Your task to perform on an android device: turn on the 12-hour format for clock Image 0: 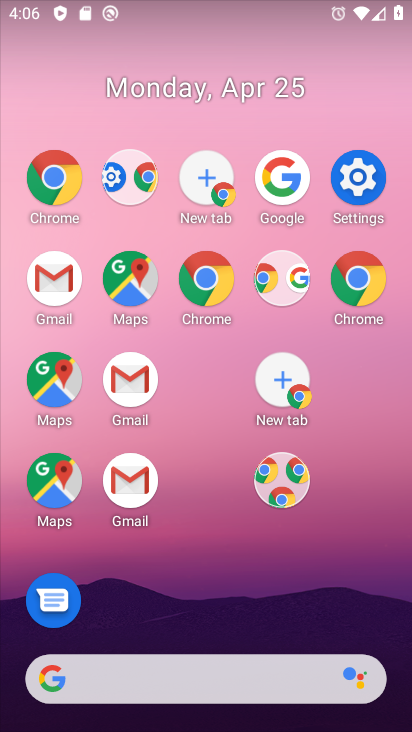
Step 0: drag from (319, 599) to (153, 62)
Your task to perform on an android device: turn on the 12-hour format for clock Image 1: 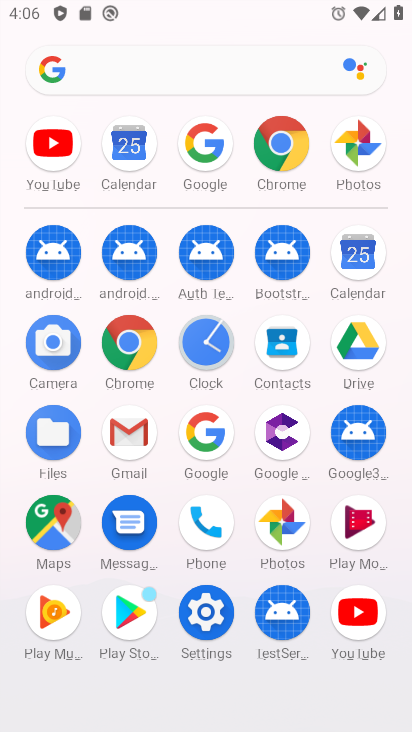
Step 1: click (215, 334)
Your task to perform on an android device: turn on the 12-hour format for clock Image 2: 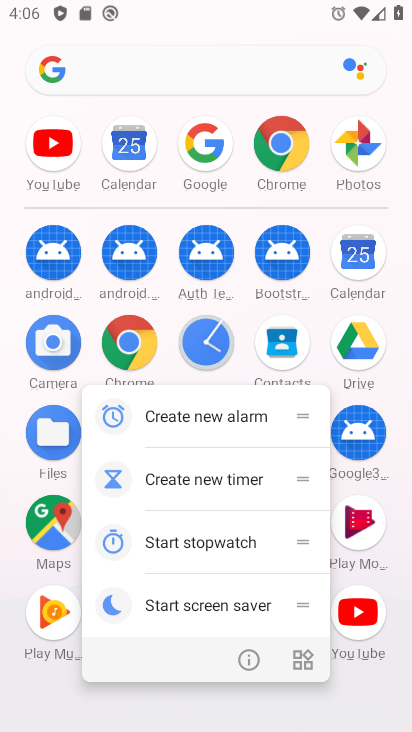
Step 2: click (207, 338)
Your task to perform on an android device: turn on the 12-hour format for clock Image 3: 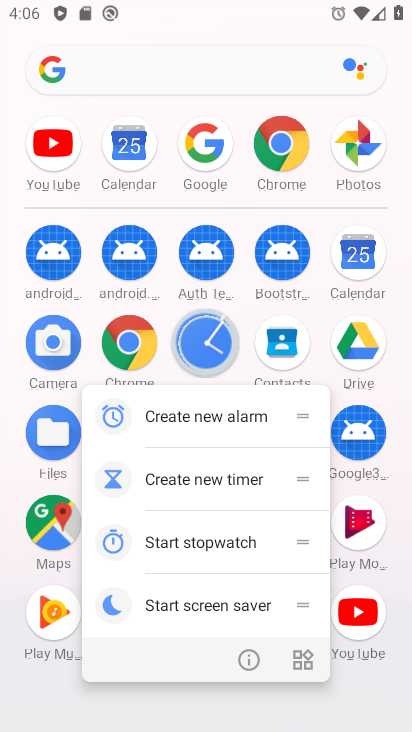
Step 3: click (206, 338)
Your task to perform on an android device: turn on the 12-hour format for clock Image 4: 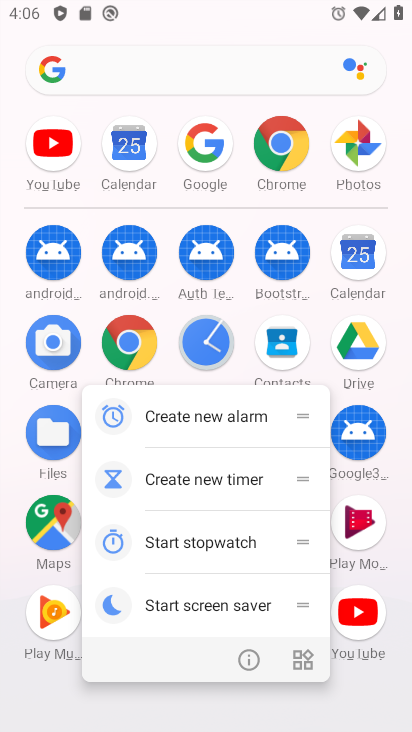
Step 4: click (206, 338)
Your task to perform on an android device: turn on the 12-hour format for clock Image 5: 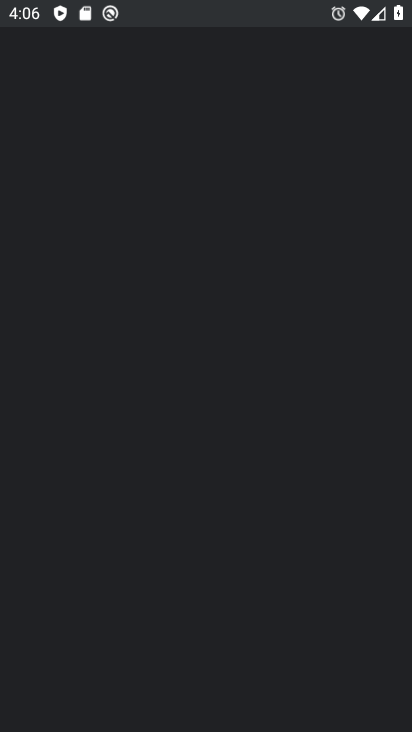
Step 5: click (204, 337)
Your task to perform on an android device: turn on the 12-hour format for clock Image 6: 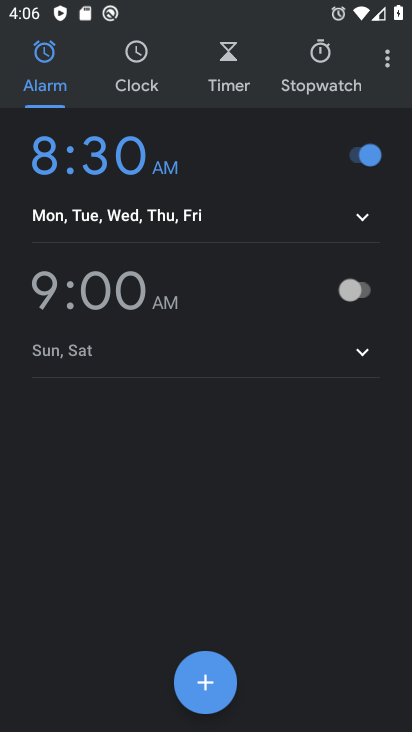
Step 6: click (387, 45)
Your task to perform on an android device: turn on the 12-hour format for clock Image 7: 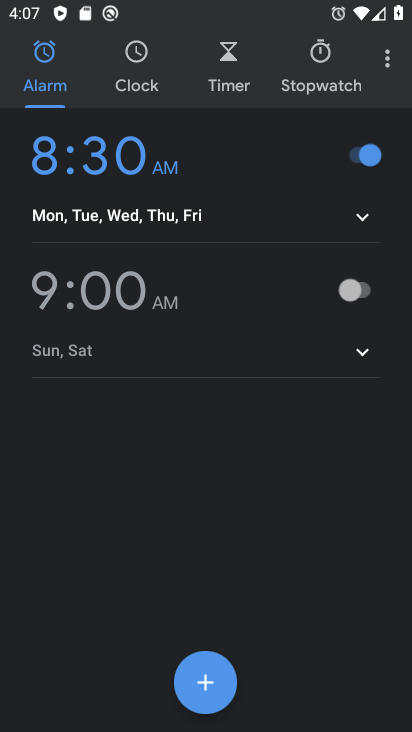
Step 7: click (381, 56)
Your task to perform on an android device: turn on the 12-hour format for clock Image 8: 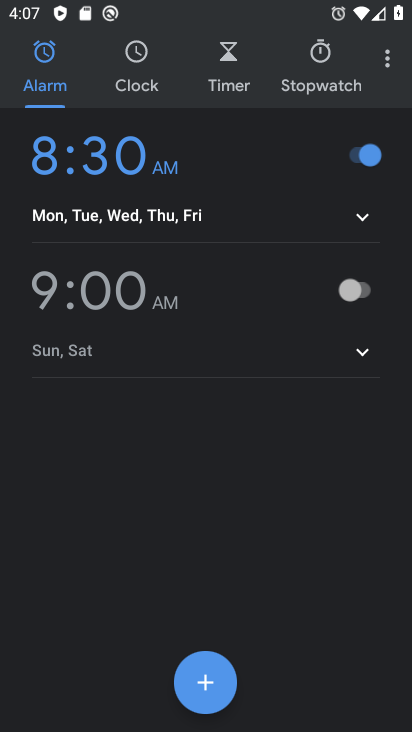
Step 8: click (380, 64)
Your task to perform on an android device: turn on the 12-hour format for clock Image 9: 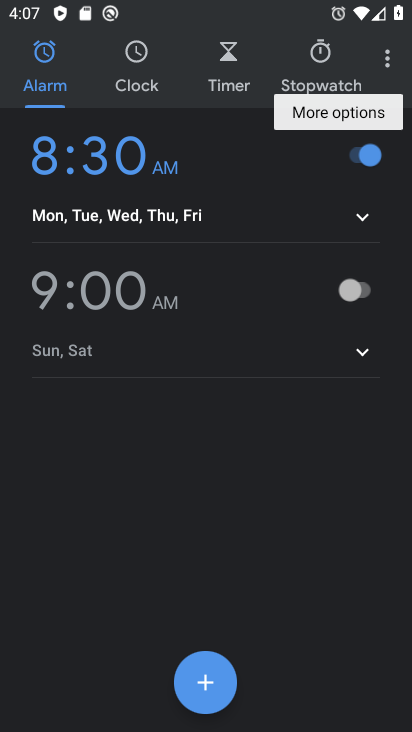
Step 9: click (385, 63)
Your task to perform on an android device: turn on the 12-hour format for clock Image 10: 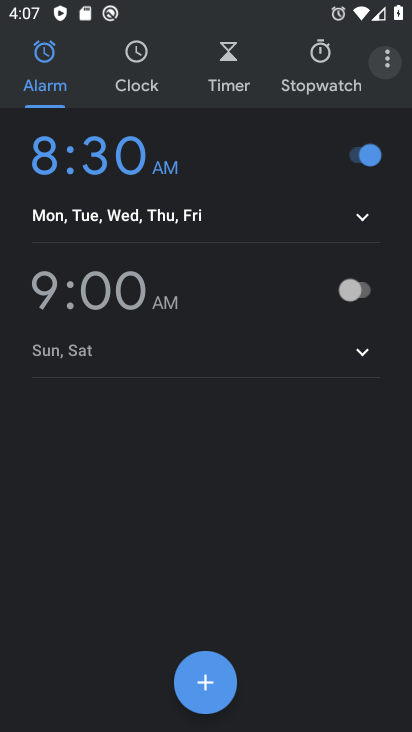
Step 10: click (386, 62)
Your task to perform on an android device: turn on the 12-hour format for clock Image 11: 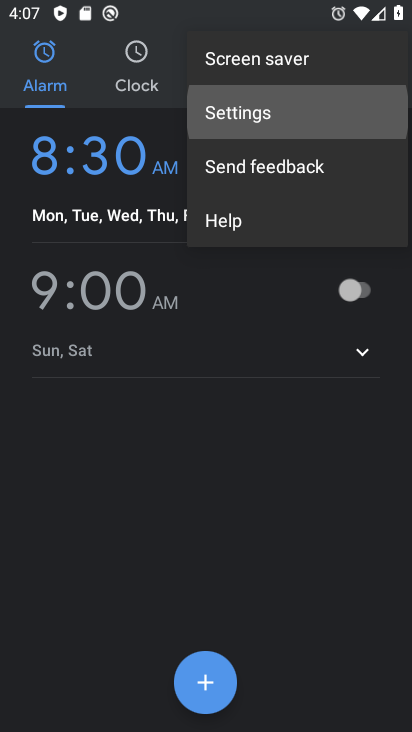
Step 11: click (386, 62)
Your task to perform on an android device: turn on the 12-hour format for clock Image 12: 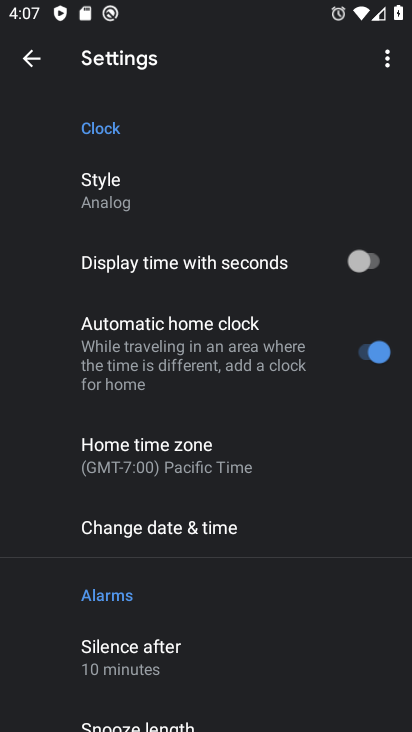
Step 12: click (147, 514)
Your task to perform on an android device: turn on the 12-hour format for clock Image 13: 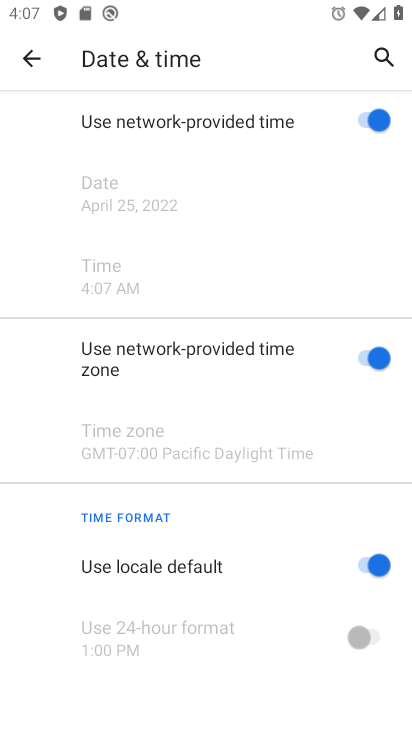
Step 13: click (370, 557)
Your task to perform on an android device: turn on the 12-hour format for clock Image 14: 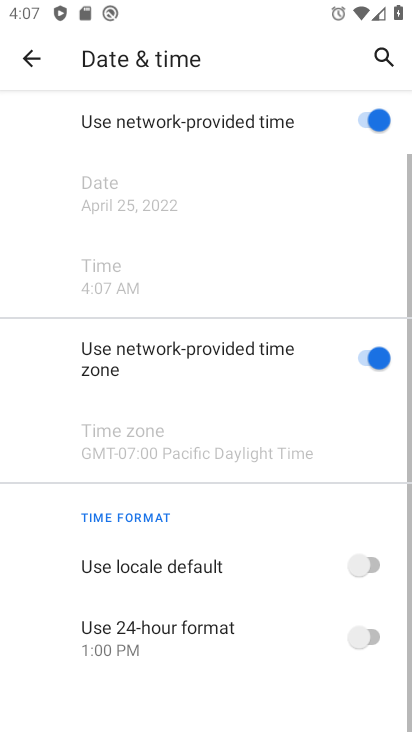
Step 14: click (354, 634)
Your task to perform on an android device: turn on the 12-hour format for clock Image 15: 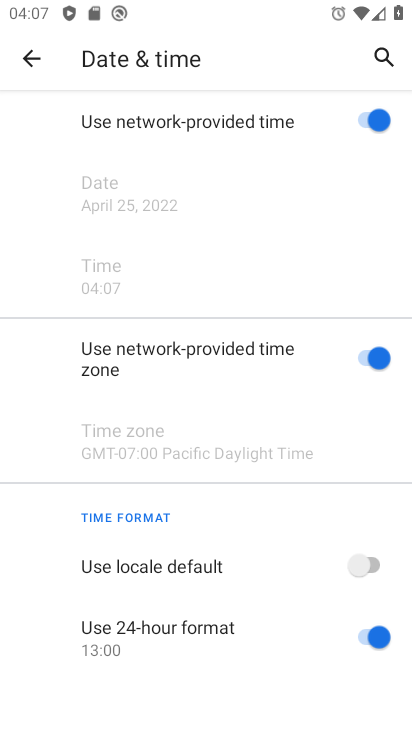
Step 15: press home button
Your task to perform on an android device: turn on the 12-hour format for clock Image 16: 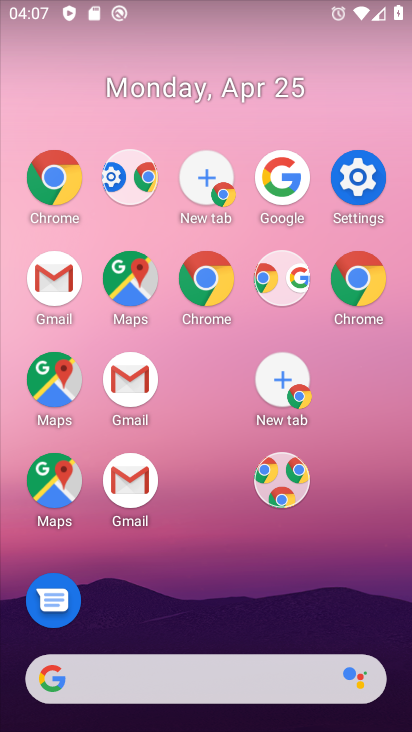
Step 16: drag from (270, 669) to (217, 192)
Your task to perform on an android device: turn on the 12-hour format for clock Image 17: 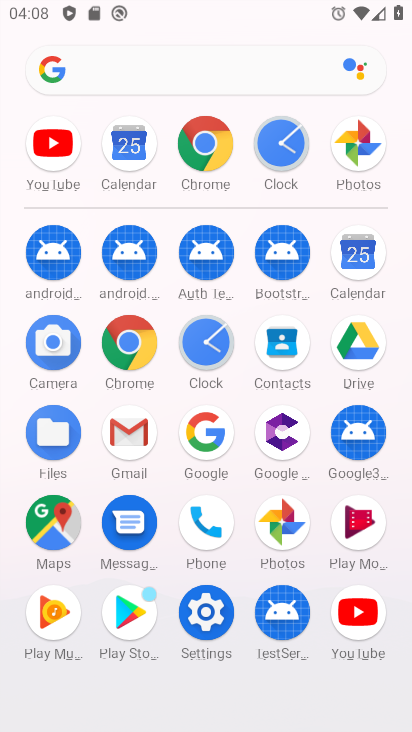
Step 17: click (219, 354)
Your task to perform on an android device: turn on the 12-hour format for clock Image 18: 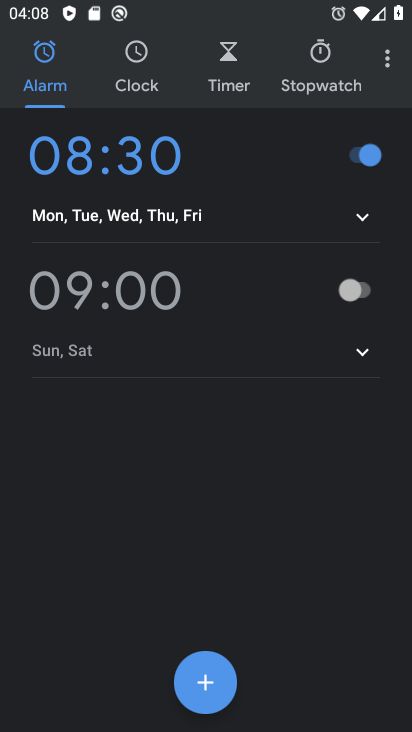
Step 18: click (392, 66)
Your task to perform on an android device: turn on the 12-hour format for clock Image 19: 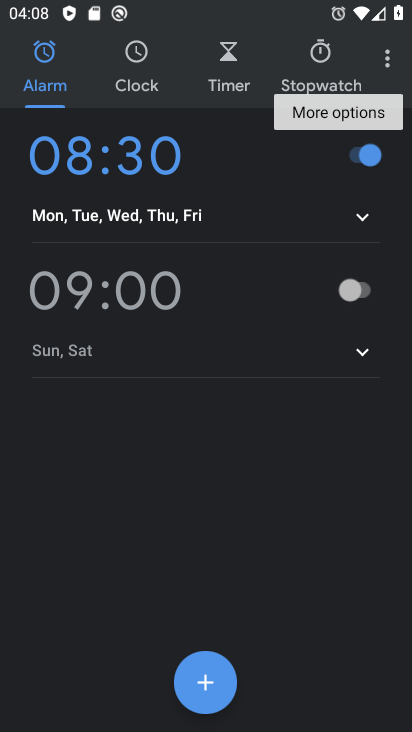
Step 19: click (386, 66)
Your task to perform on an android device: turn on the 12-hour format for clock Image 20: 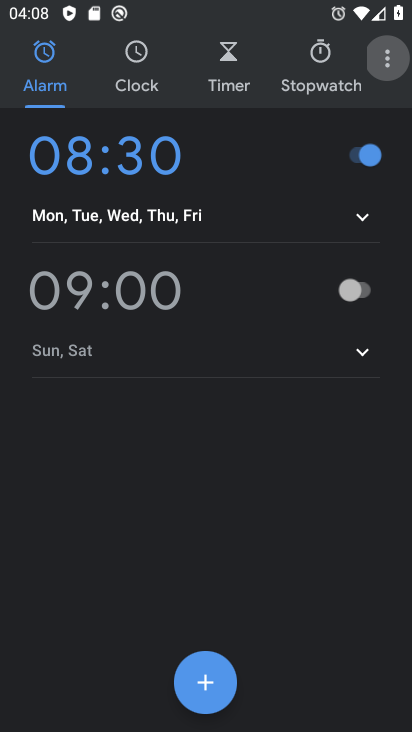
Step 20: click (386, 66)
Your task to perform on an android device: turn on the 12-hour format for clock Image 21: 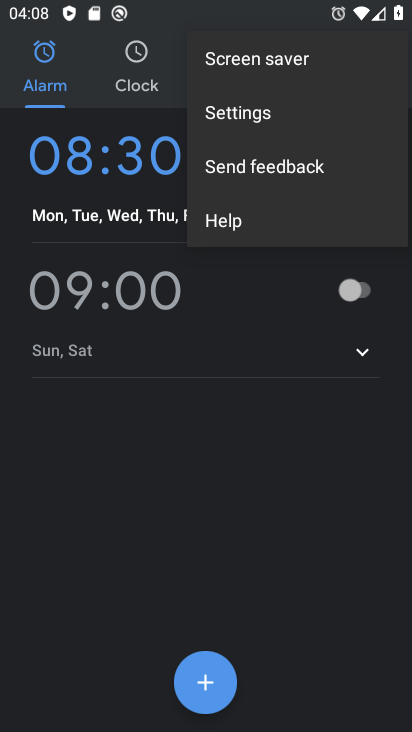
Step 21: click (386, 66)
Your task to perform on an android device: turn on the 12-hour format for clock Image 22: 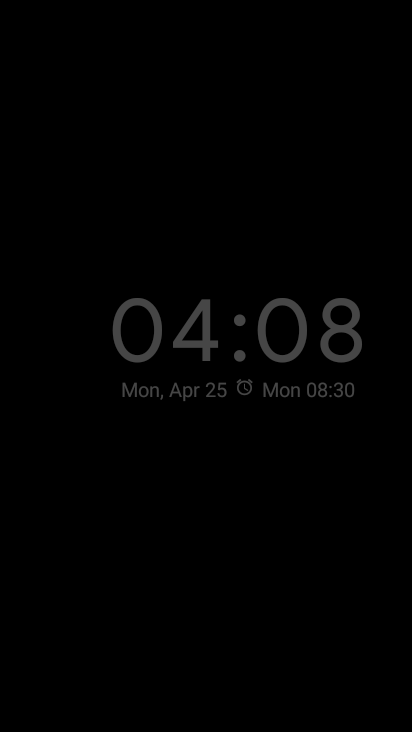
Step 22: click (266, 114)
Your task to perform on an android device: turn on the 12-hour format for clock Image 23: 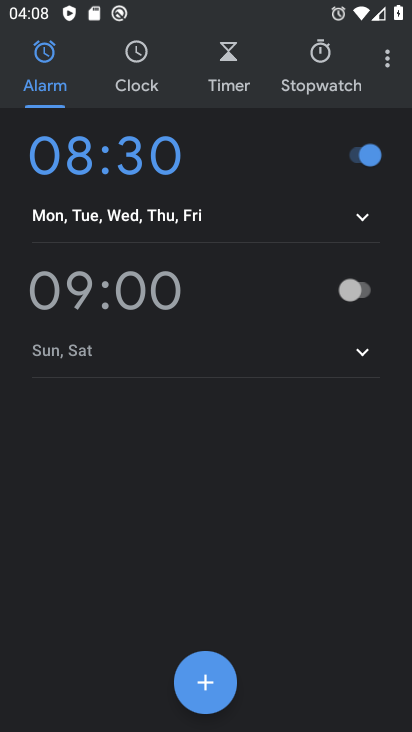
Step 23: click (385, 65)
Your task to perform on an android device: turn on the 12-hour format for clock Image 24: 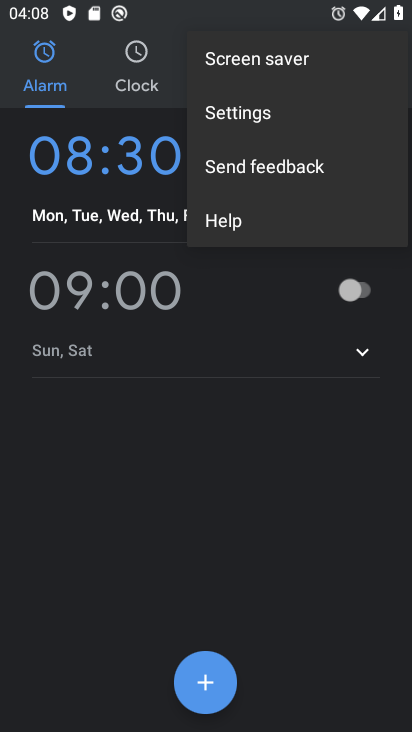
Step 24: click (215, 121)
Your task to perform on an android device: turn on the 12-hour format for clock Image 25: 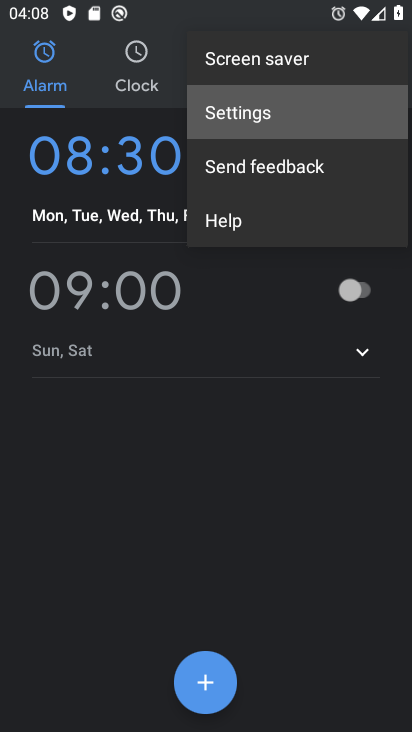
Step 25: click (215, 121)
Your task to perform on an android device: turn on the 12-hour format for clock Image 26: 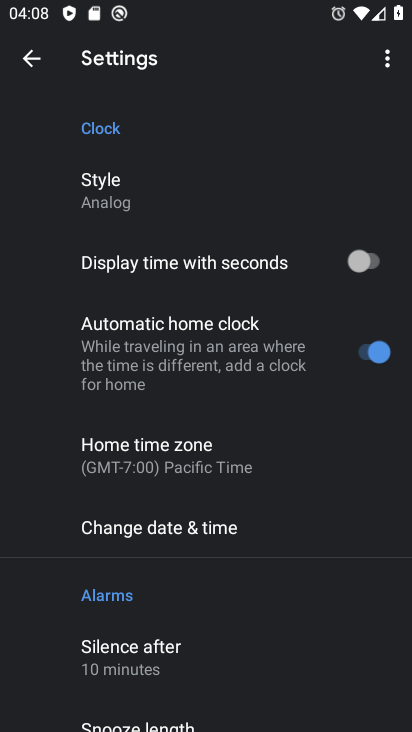
Step 26: drag from (212, 634) to (215, 340)
Your task to perform on an android device: turn on the 12-hour format for clock Image 27: 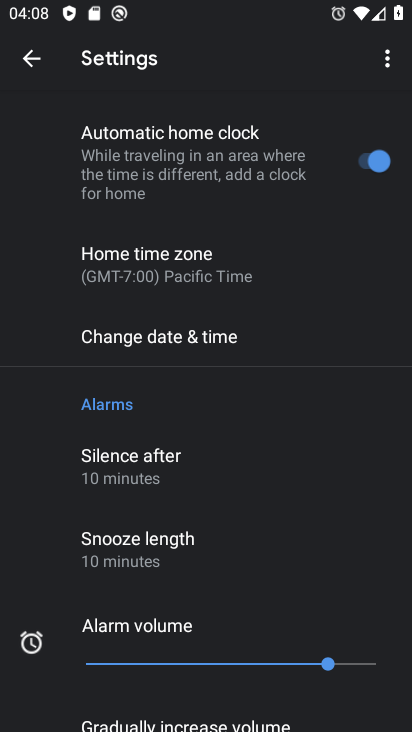
Step 27: click (163, 340)
Your task to perform on an android device: turn on the 12-hour format for clock Image 28: 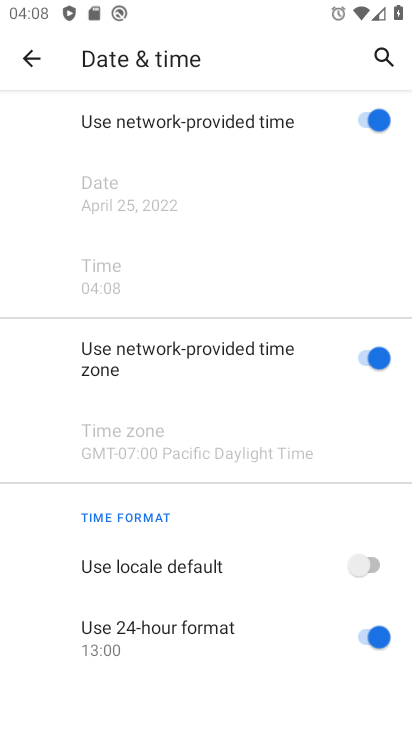
Step 28: click (355, 567)
Your task to perform on an android device: turn on the 12-hour format for clock Image 29: 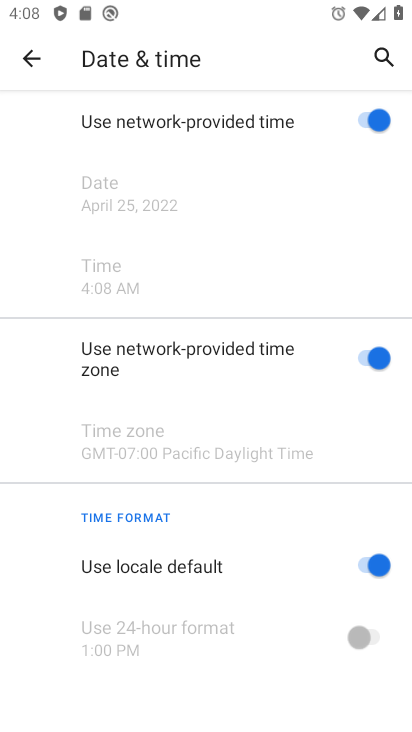
Step 29: task complete